Your task to perform on an android device: star an email in the gmail app Image 0: 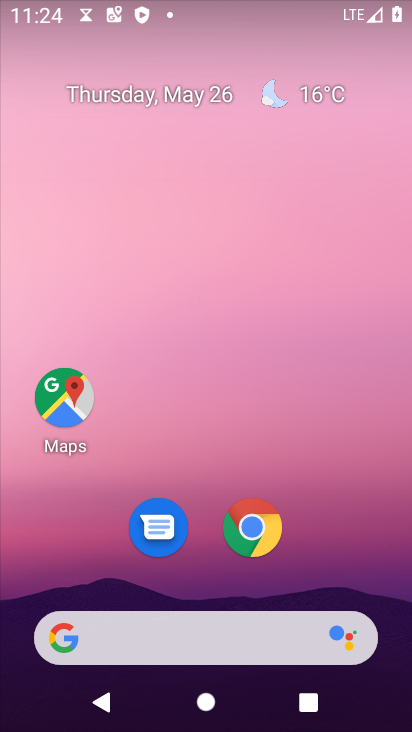
Step 0: drag from (212, 569) to (202, 0)
Your task to perform on an android device: star an email in the gmail app Image 1: 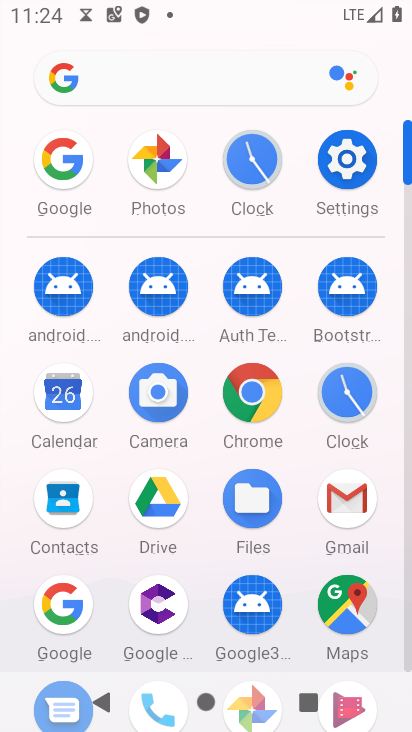
Step 1: click (344, 508)
Your task to perform on an android device: star an email in the gmail app Image 2: 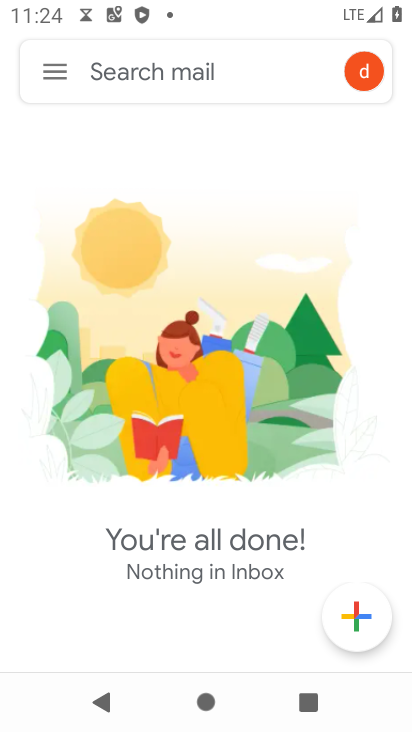
Step 2: click (59, 71)
Your task to perform on an android device: star an email in the gmail app Image 3: 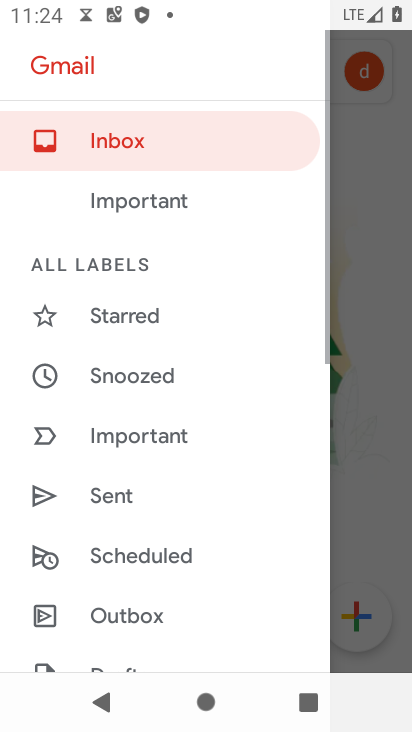
Step 3: drag from (185, 568) to (180, 213)
Your task to perform on an android device: star an email in the gmail app Image 4: 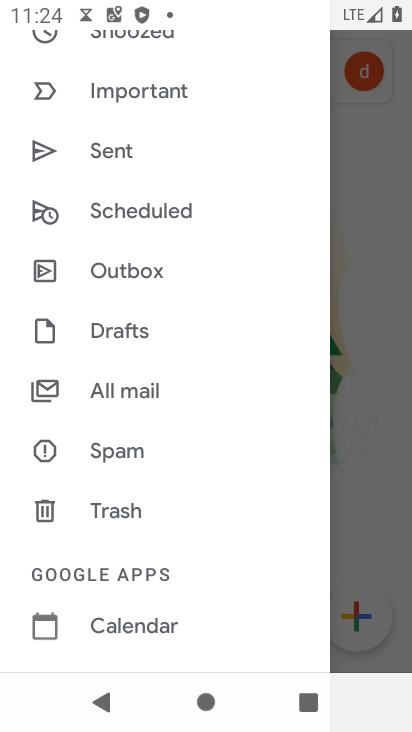
Step 4: click (177, 381)
Your task to perform on an android device: star an email in the gmail app Image 5: 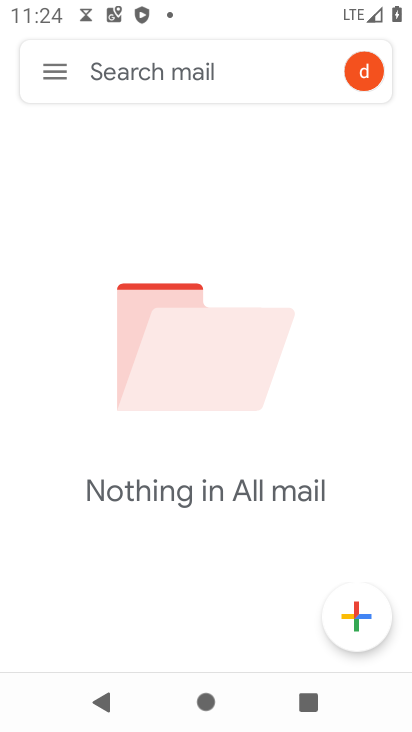
Step 5: task complete